Your task to perform on an android device: Check the news Image 0: 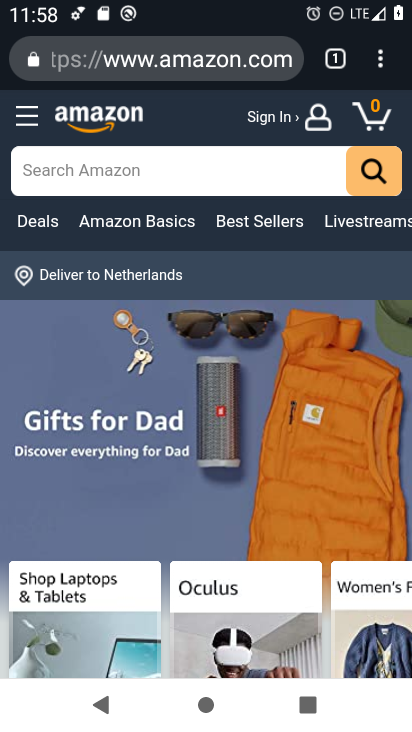
Step 0: click (185, 52)
Your task to perform on an android device: Check the news Image 1: 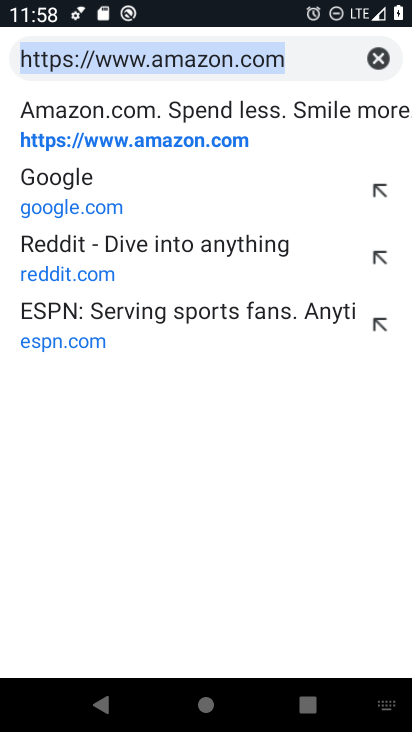
Step 1: click (373, 59)
Your task to perform on an android device: Check the news Image 2: 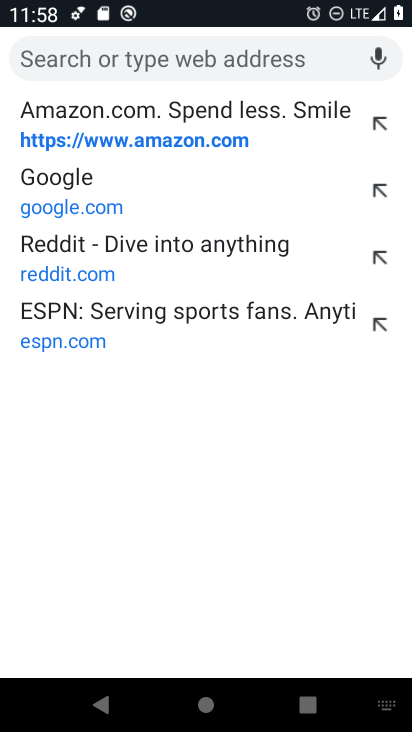
Step 2: type "Check the news"
Your task to perform on an android device: Check the news Image 3: 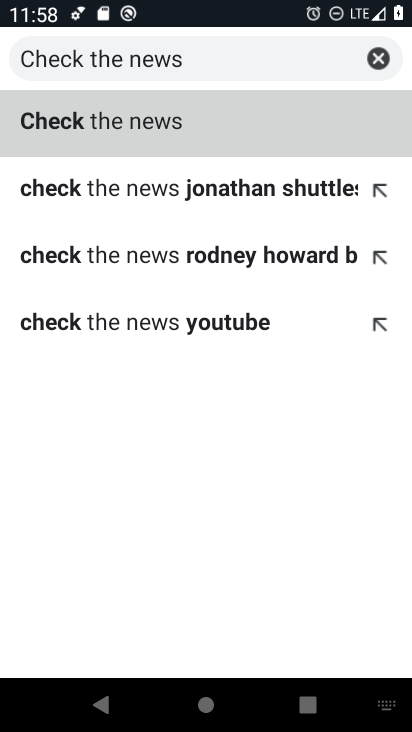
Step 3: click (156, 108)
Your task to perform on an android device: Check the news Image 4: 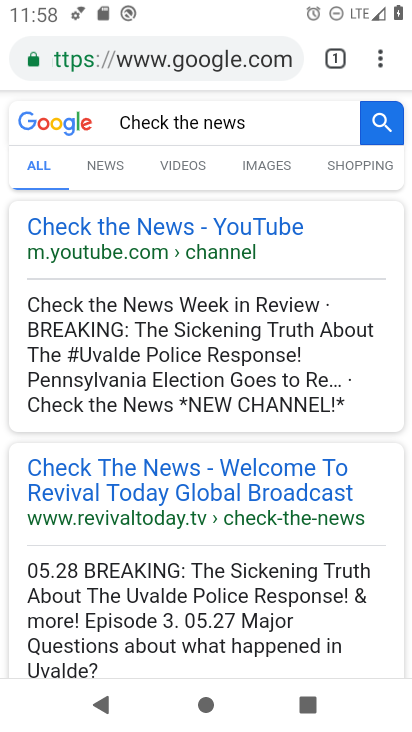
Step 4: click (101, 165)
Your task to perform on an android device: Check the news Image 5: 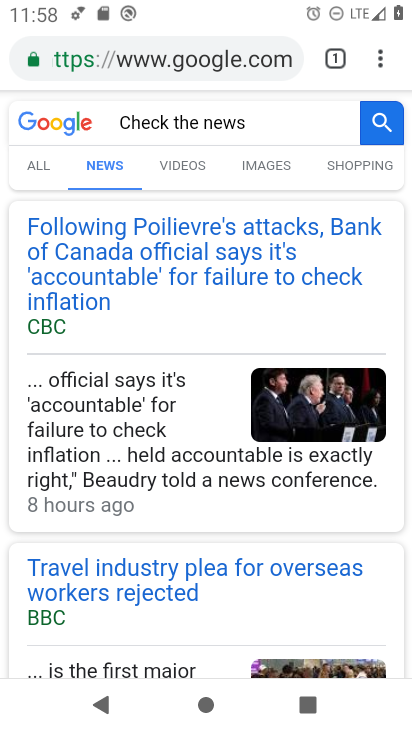
Step 5: task complete